Your task to perform on an android device: Show me productivity apps on the Play Store Image 0: 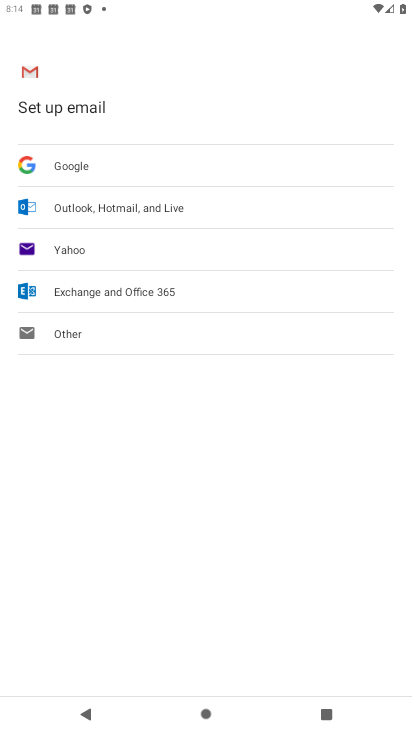
Step 0: press home button
Your task to perform on an android device: Show me productivity apps on the Play Store Image 1: 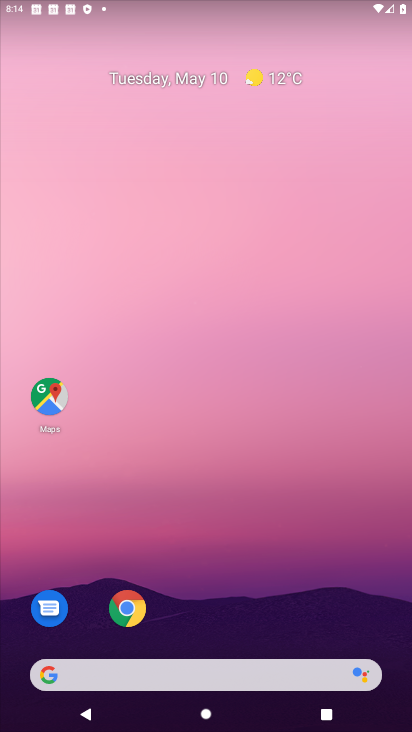
Step 1: drag from (247, 664) to (246, 298)
Your task to perform on an android device: Show me productivity apps on the Play Store Image 2: 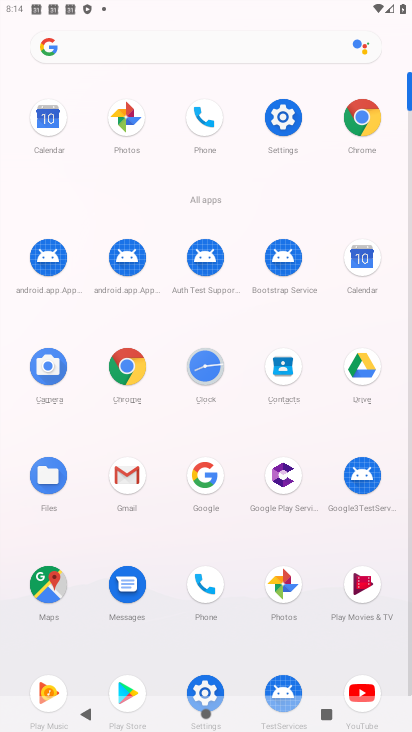
Step 2: click (125, 676)
Your task to perform on an android device: Show me productivity apps on the Play Store Image 3: 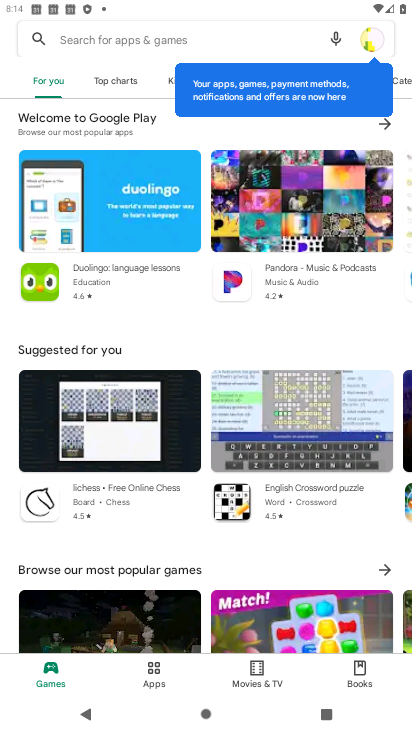
Step 3: click (162, 335)
Your task to perform on an android device: Show me productivity apps on the Play Store Image 4: 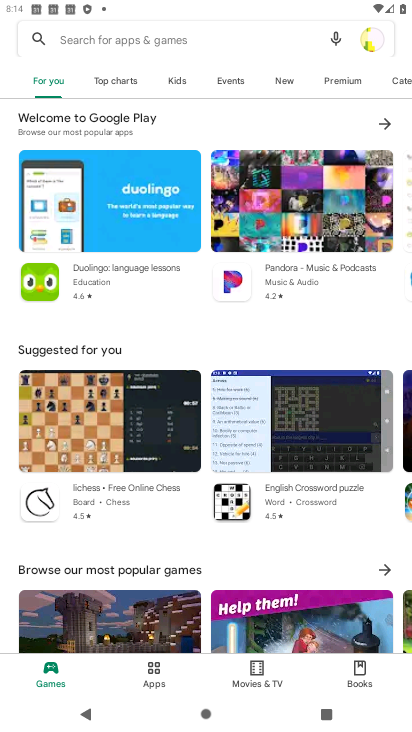
Step 4: click (162, 666)
Your task to perform on an android device: Show me productivity apps on the Play Store Image 5: 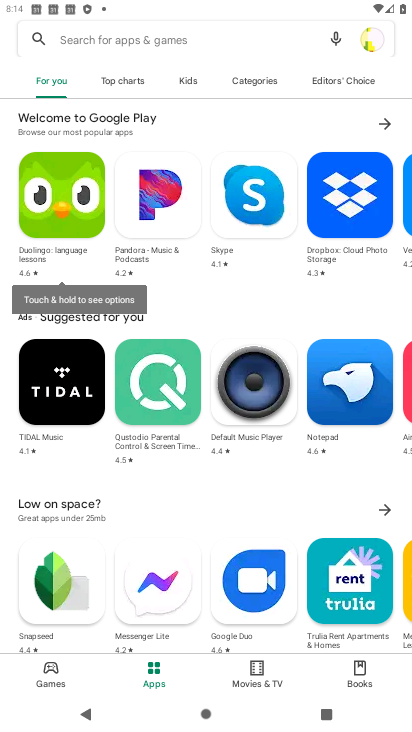
Step 5: click (251, 85)
Your task to perform on an android device: Show me productivity apps on the Play Store Image 6: 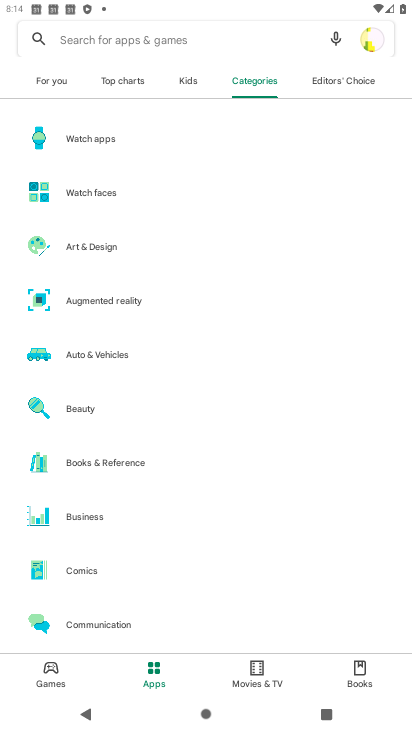
Step 6: drag from (127, 529) to (150, 129)
Your task to perform on an android device: Show me productivity apps on the Play Store Image 7: 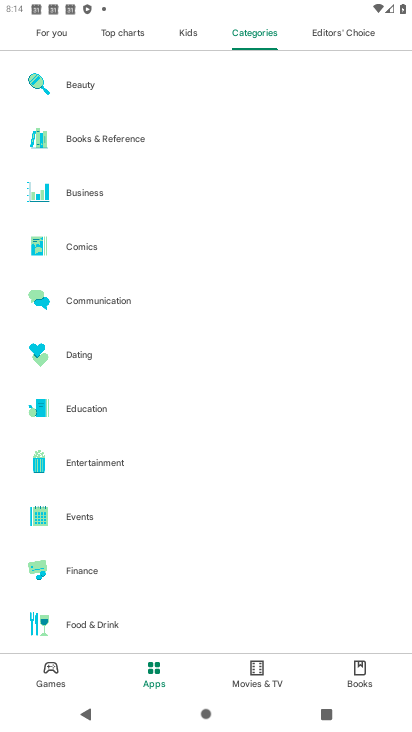
Step 7: drag from (159, 583) to (163, 297)
Your task to perform on an android device: Show me productivity apps on the Play Store Image 8: 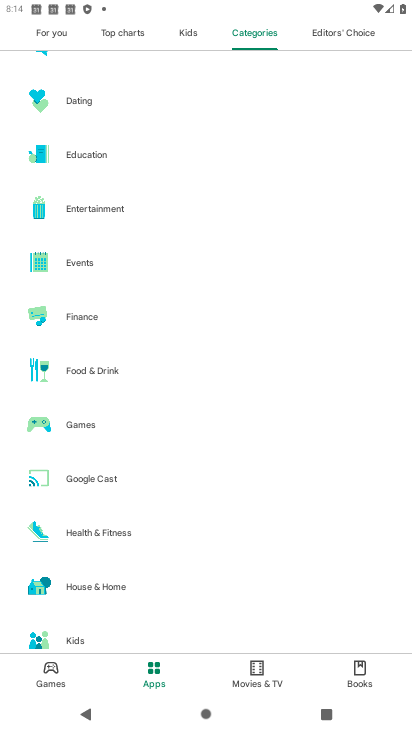
Step 8: drag from (128, 530) to (129, 135)
Your task to perform on an android device: Show me productivity apps on the Play Store Image 9: 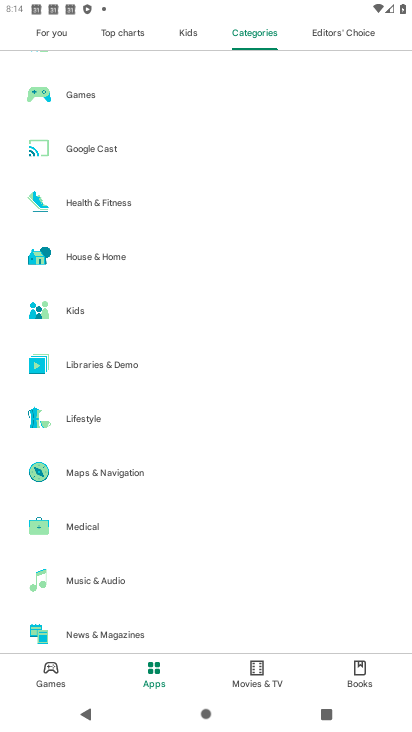
Step 9: drag from (139, 522) to (139, 40)
Your task to perform on an android device: Show me productivity apps on the Play Store Image 10: 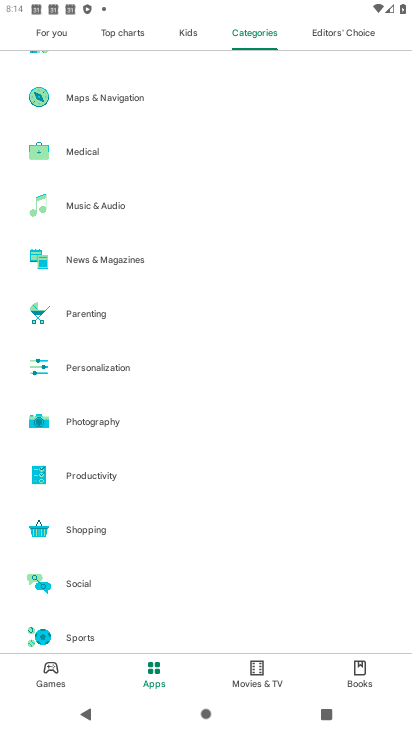
Step 10: click (124, 478)
Your task to perform on an android device: Show me productivity apps on the Play Store Image 11: 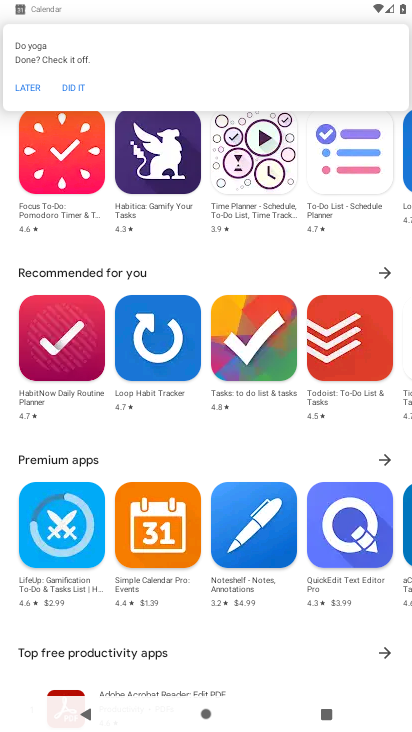
Step 11: task complete